Your task to perform on an android device: open app "Mercado Libre" (install if not already installed) Image 0: 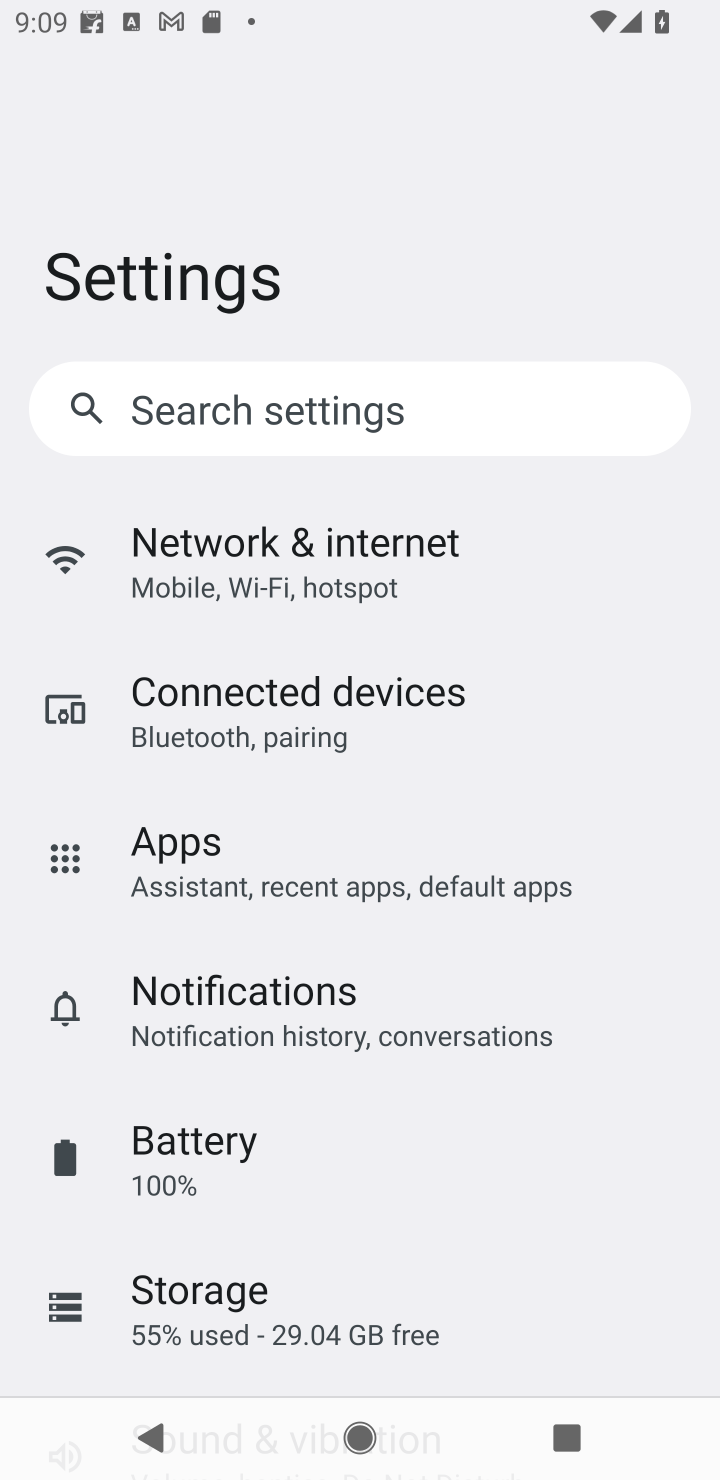
Step 0: press home button
Your task to perform on an android device: open app "Mercado Libre" (install if not already installed) Image 1: 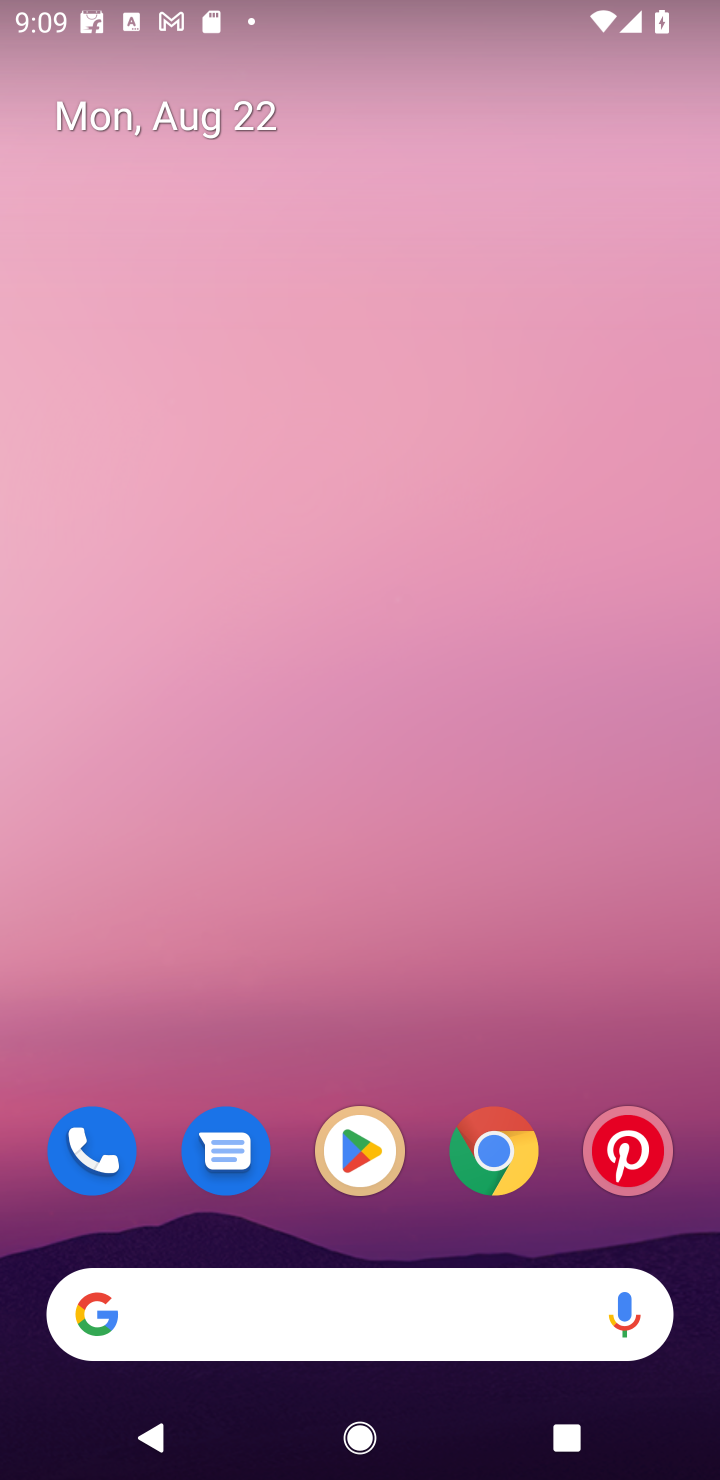
Step 1: click (347, 1142)
Your task to perform on an android device: open app "Mercado Libre" (install if not already installed) Image 2: 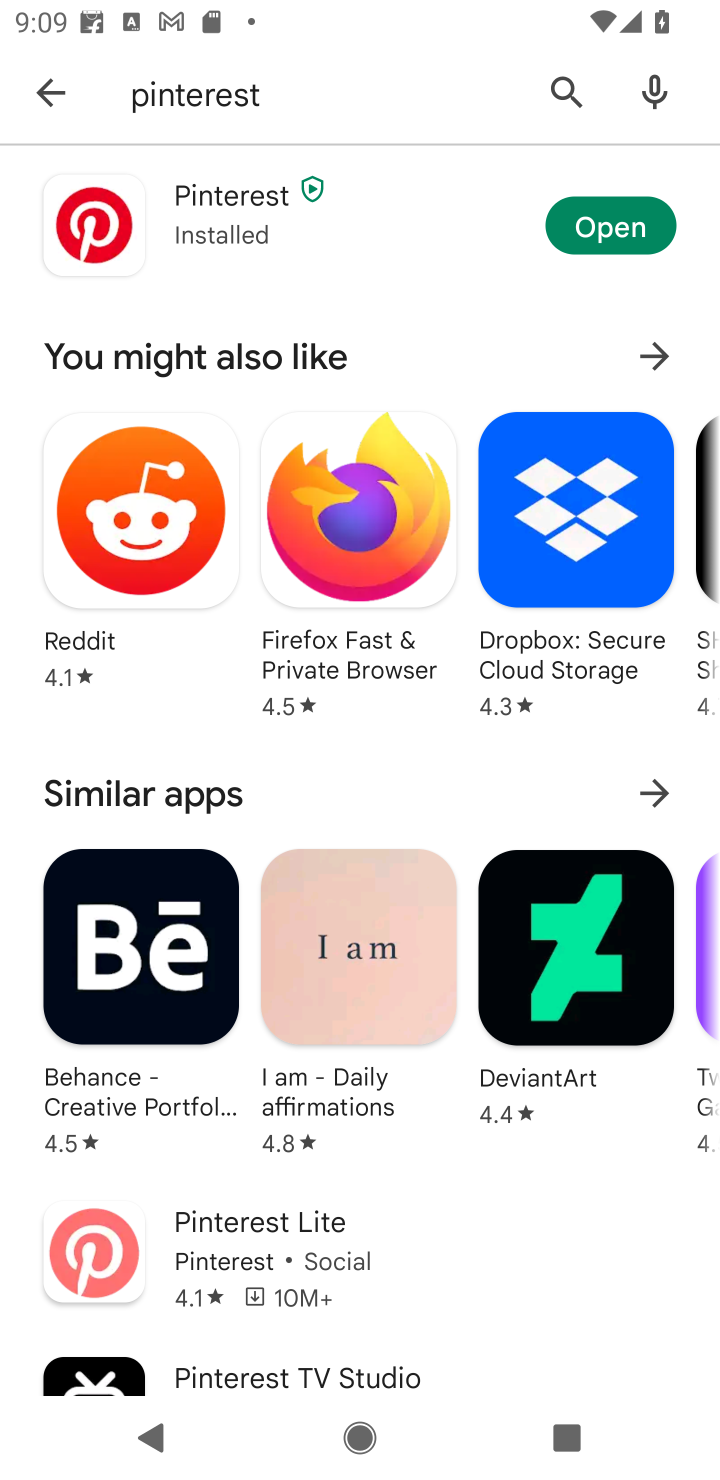
Step 2: click (558, 80)
Your task to perform on an android device: open app "Mercado Libre" (install if not already installed) Image 3: 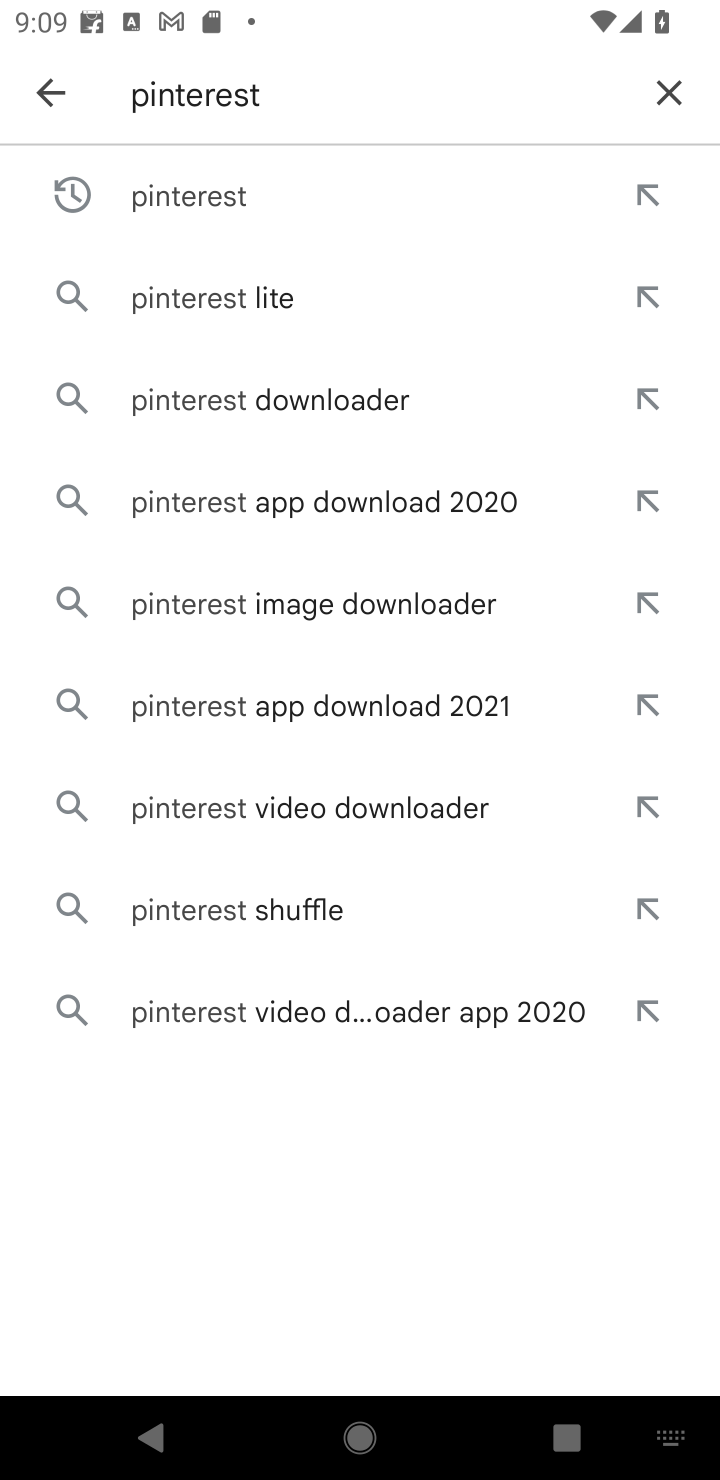
Step 3: click (654, 98)
Your task to perform on an android device: open app "Mercado Libre" (install if not already installed) Image 4: 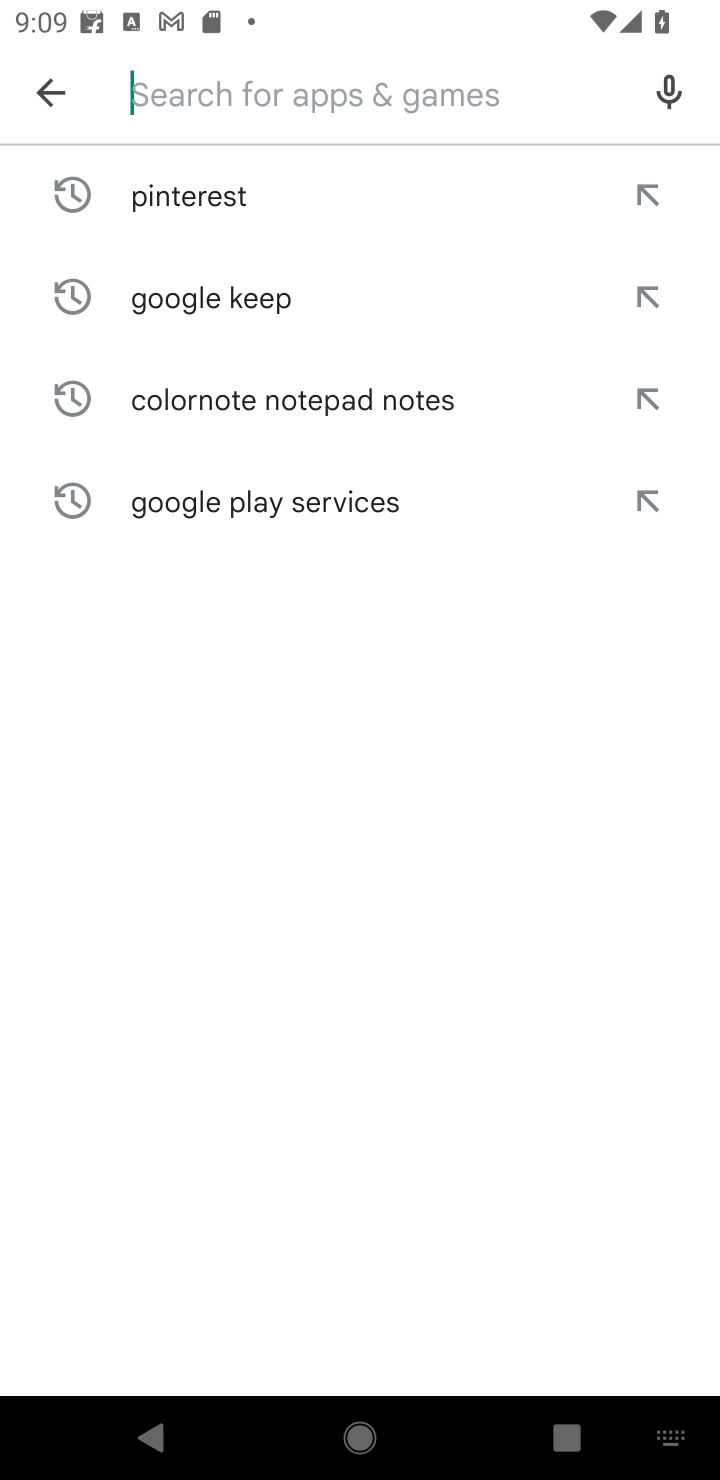
Step 4: type "Mercado Libre"
Your task to perform on an android device: open app "Mercado Libre" (install if not already installed) Image 5: 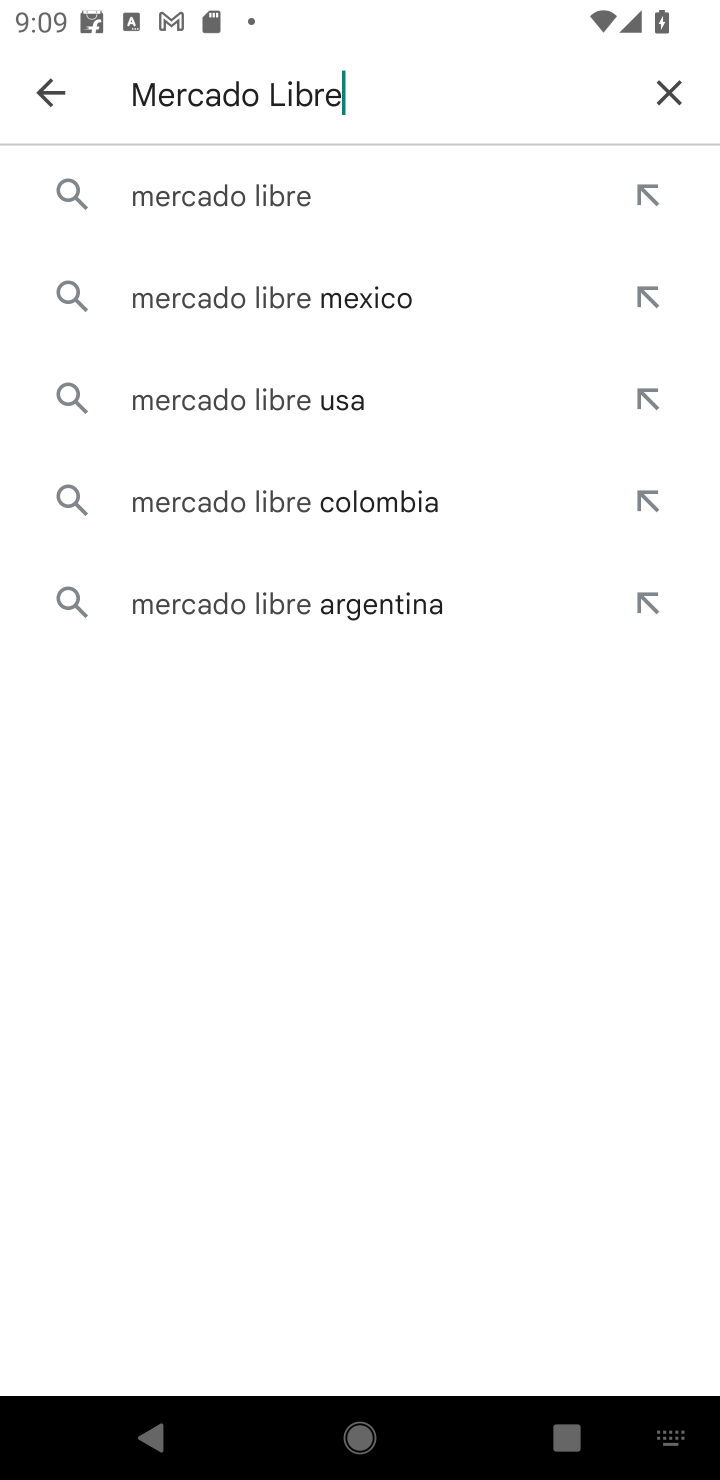
Step 5: click (213, 207)
Your task to perform on an android device: open app "Mercado Libre" (install if not already installed) Image 6: 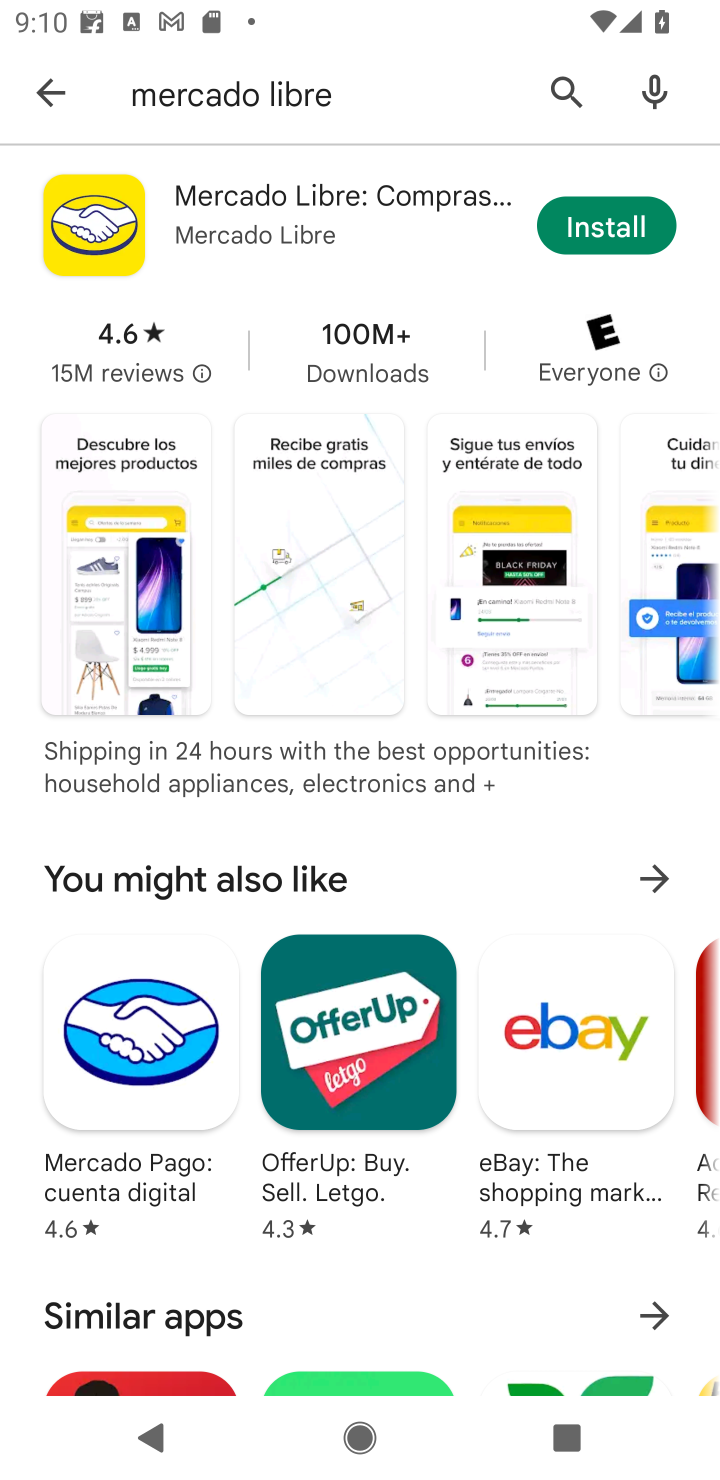
Step 6: click (631, 220)
Your task to perform on an android device: open app "Mercado Libre" (install if not already installed) Image 7: 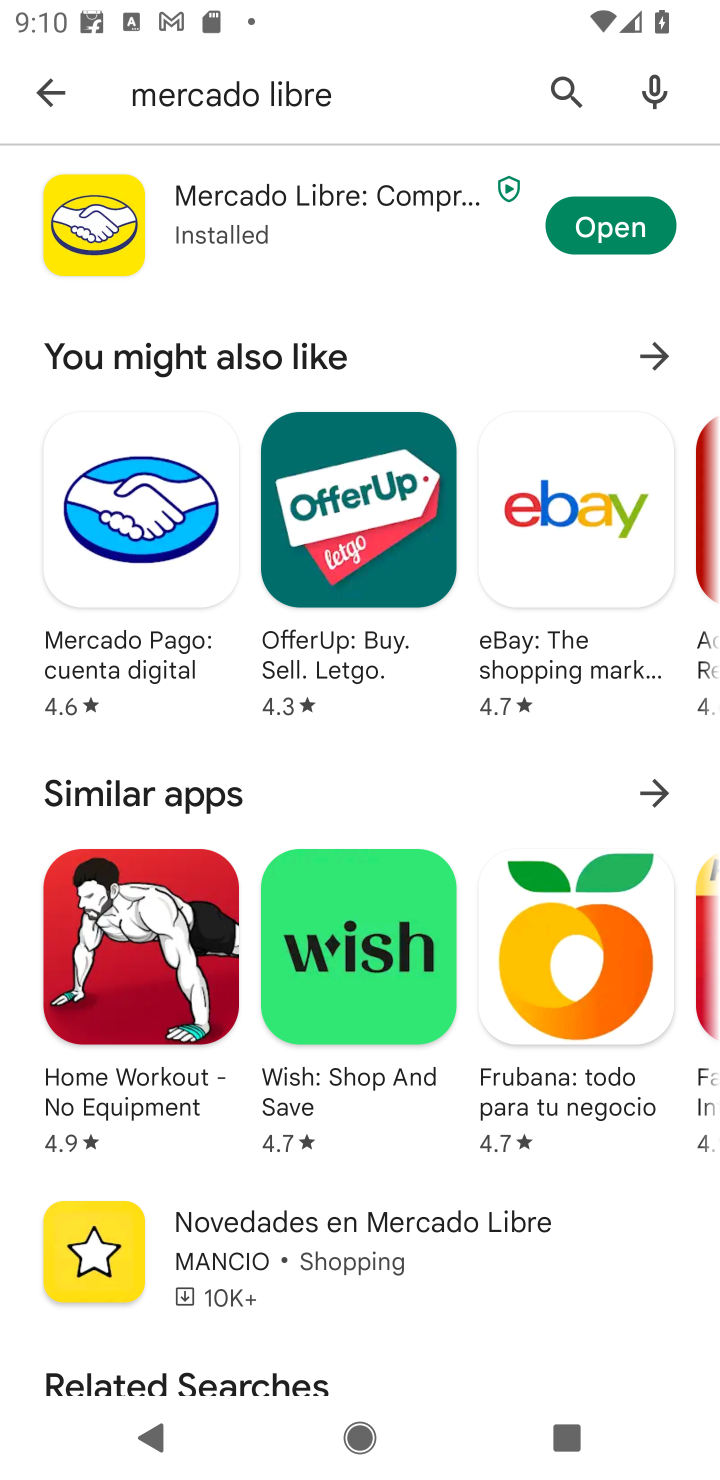
Step 7: click (635, 205)
Your task to perform on an android device: open app "Mercado Libre" (install if not already installed) Image 8: 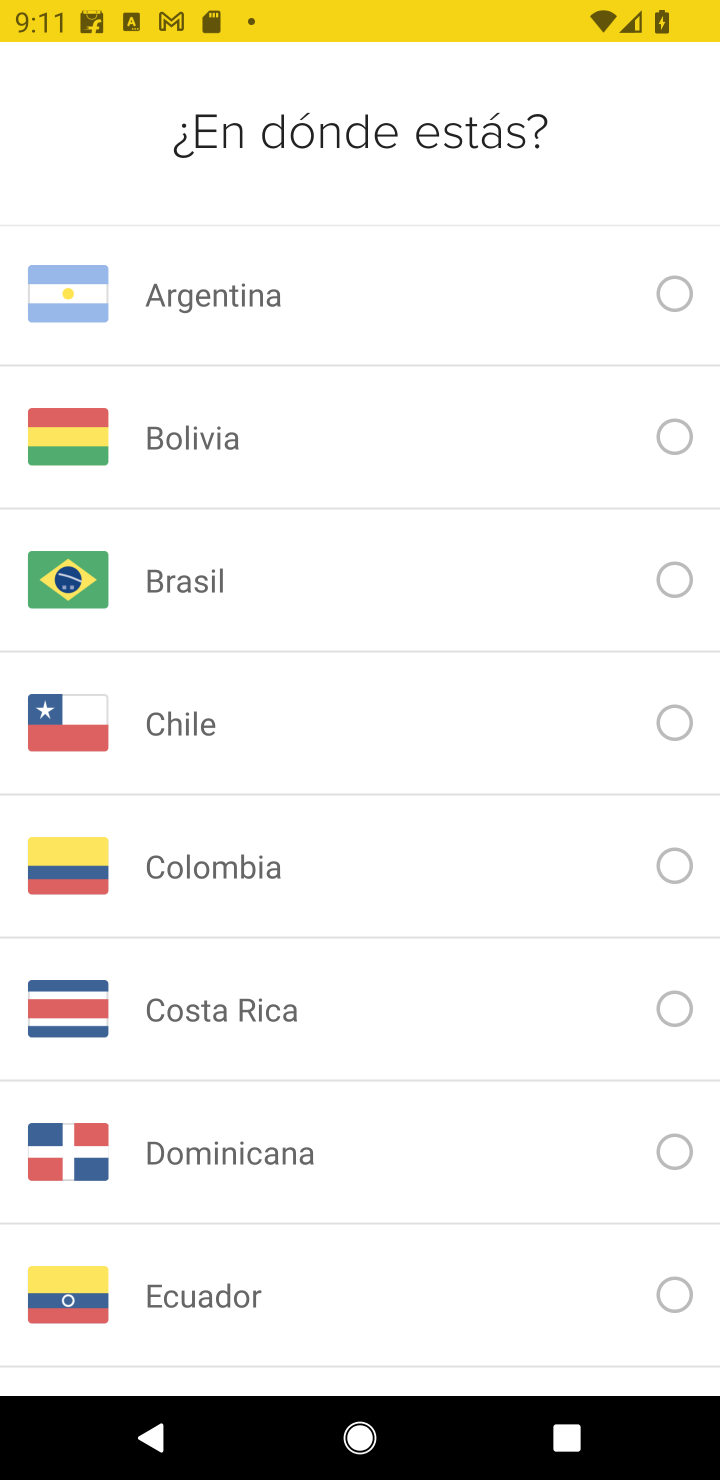
Step 8: task complete